Your task to perform on an android device: turn off smart reply in the gmail app Image 0: 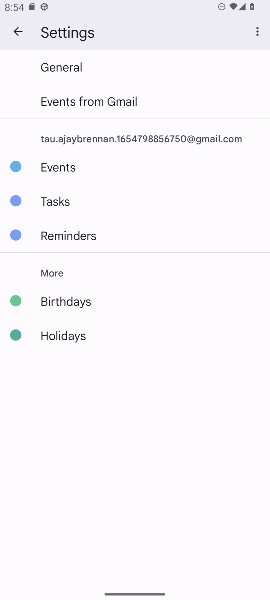
Step 0: press home button
Your task to perform on an android device: turn off smart reply in the gmail app Image 1: 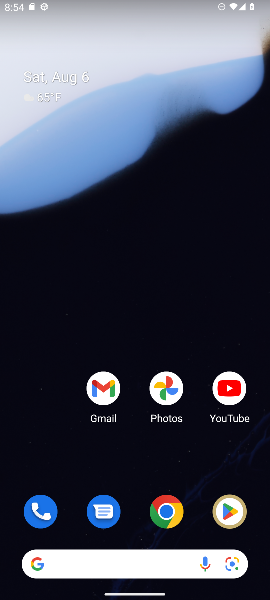
Step 1: drag from (219, 457) to (191, 162)
Your task to perform on an android device: turn off smart reply in the gmail app Image 2: 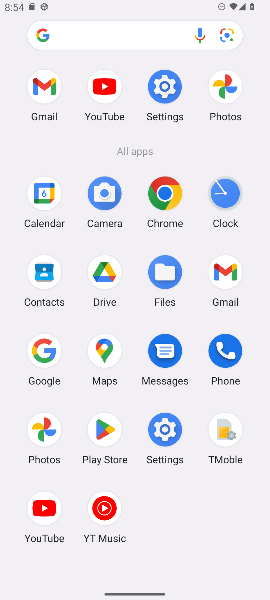
Step 2: click (36, 75)
Your task to perform on an android device: turn off smart reply in the gmail app Image 3: 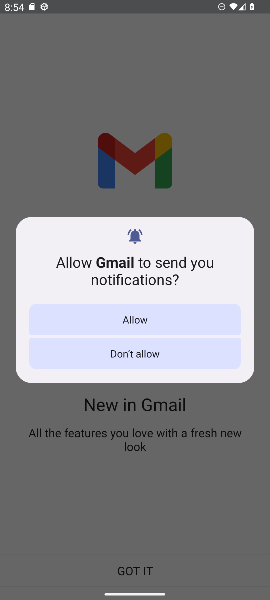
Step 3: click (50, 308)
Your task to perform on an android device: turn off smart reply in the gmail app Image 4: 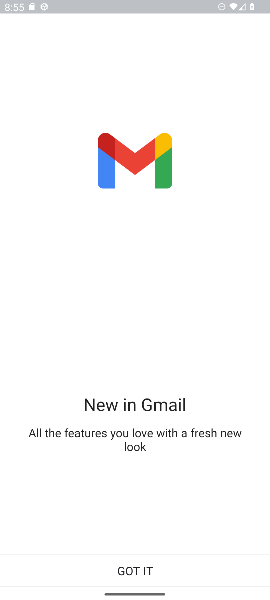
Step 4: click (55, 571)
Your task to perform on an android device: turn off smart reply in the gmail app Image 5: 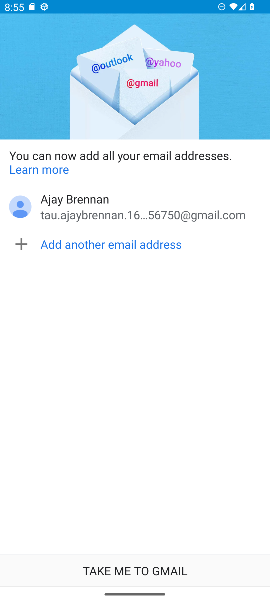
Step 5: click (55, 570)
Your task to perform on an android device: turn off smart reply in the gmail app Image 6: 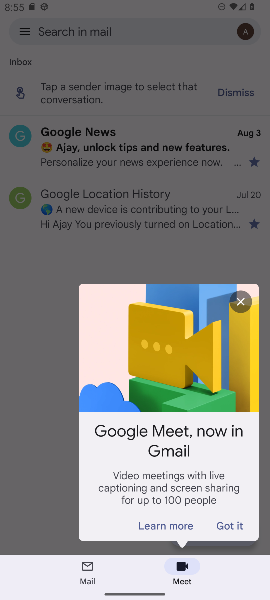
Step 6: click (238, 299)
Your task to perform on an android device: turn off smart reply in the gmail app Image 7: 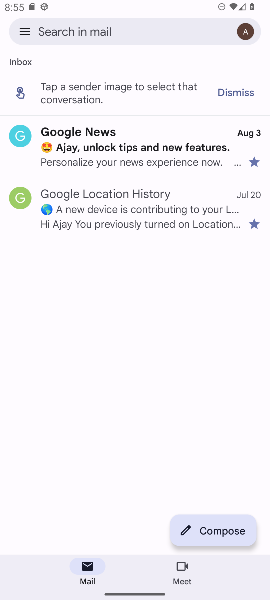
Step 7: click (20, 32)
Your task to perform on an android device: turn off smart reply in the gmail app Image 8: 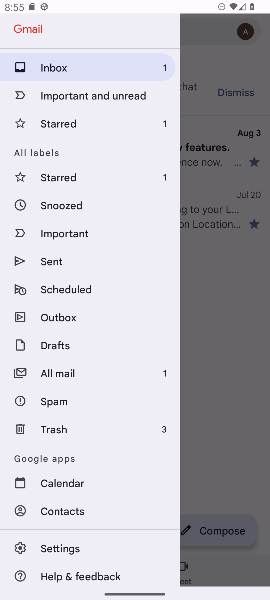
Step 8: click (48, 548)
Your task to perform on an android device: turn off smart reply in the gmail app Image 9: 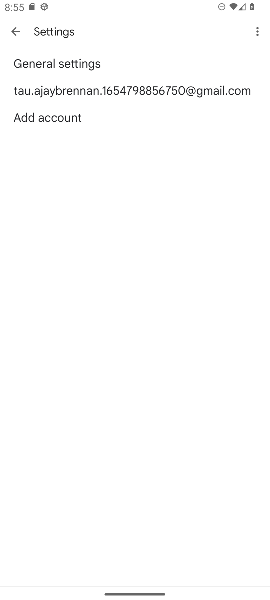
Step 9: click (68, 87)
Your task to perform on an android device: turn off smart reply in the gmail app Image 10: 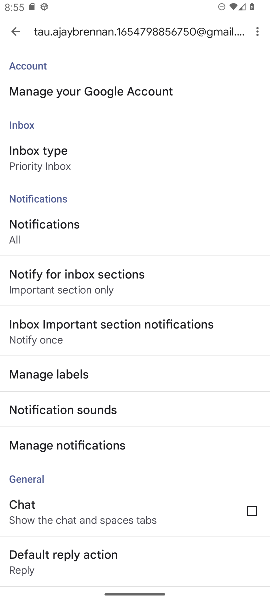
Step 10: drag from (92, 493) to (53, 47)
Your task to perform on an android device: turn off smart reply in the gmail app Image 11: 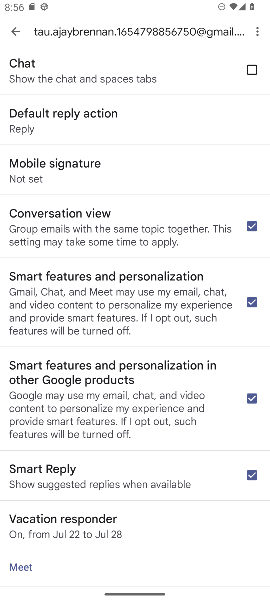
Step 11: click (73, 470)
Your task to perform on an android device: turn off smart reply in the gmail app Image 12: 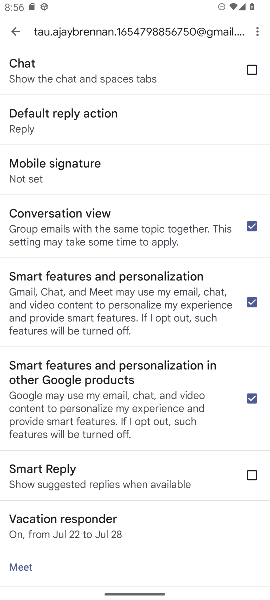
Step 12: task complete